Your task to perform on an android device: add a contact Image 0: 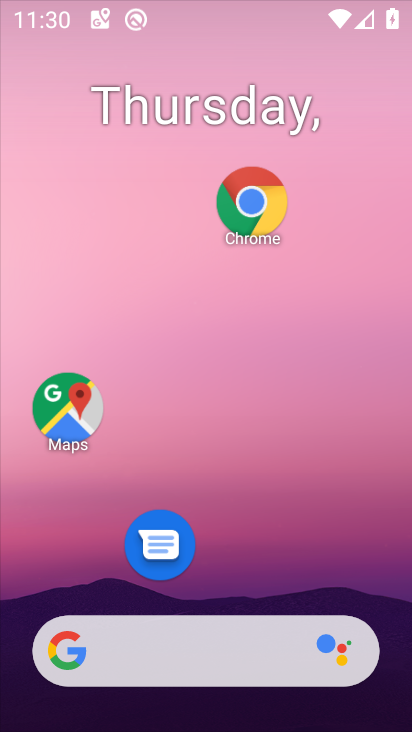
Step 0: drag from (217, 595) to (281, 153)
Your task to perform on an android device: add a contact Image 1: 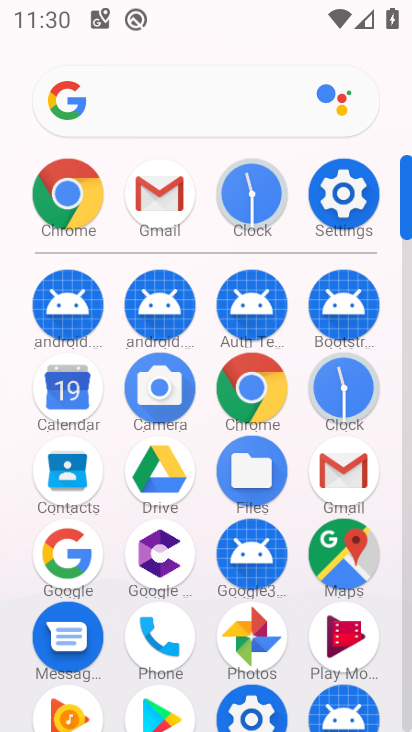
Step 1: click (64, 496)
Your task to perform on an android device: add a contact Image 2: 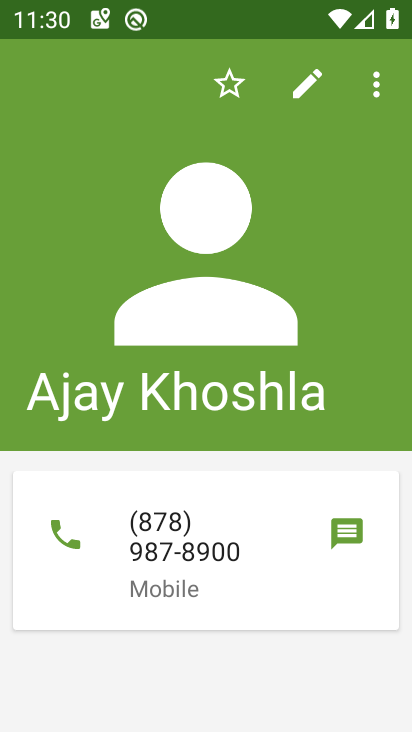
Step 2: press back button
Your task to perform on an android device: add a contact Image 3: 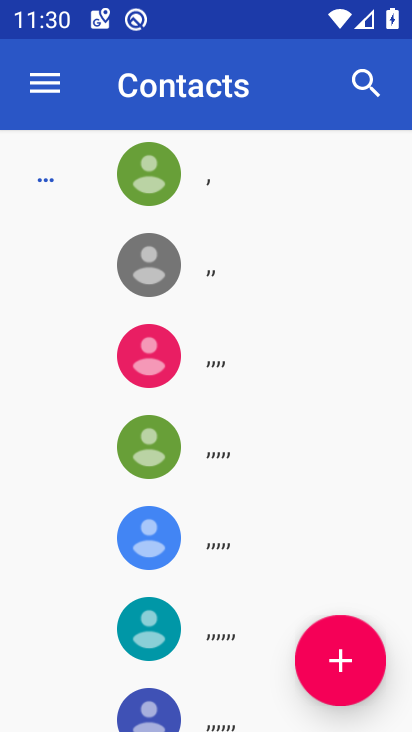
Step 3: click (350, 667)
Your task to perform on an android device: add a contact Image 4: 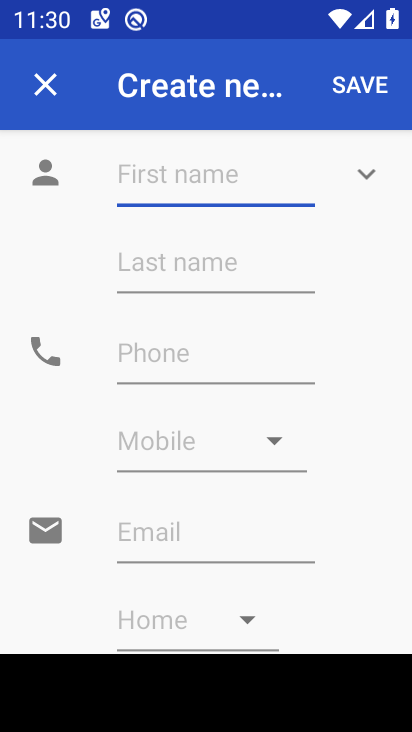
Step 4: click (188, 182)
Your task to perform on an android device: add a contact Image 5: 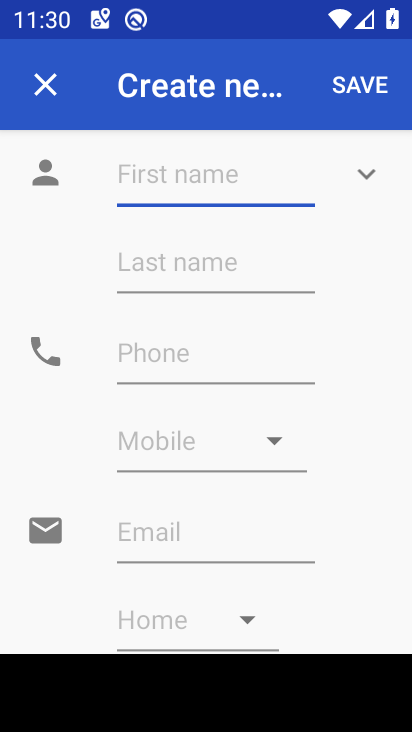
Step 5: type "ankur"
Your task to perform on an android device: add a contact Image 6: 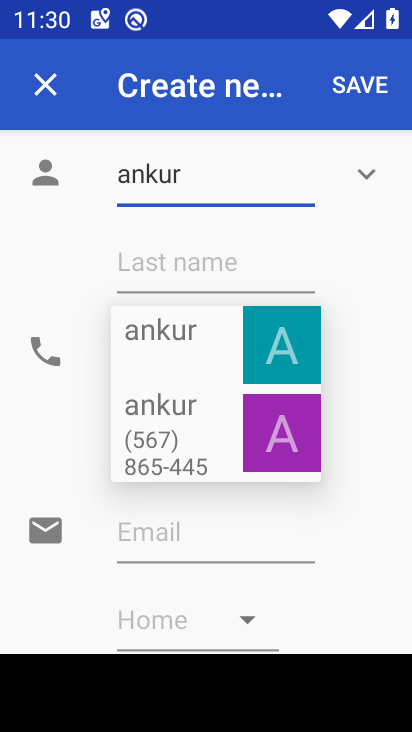
Step 6: click (269, 266)
Your task to perform on an android device: add a contact Image 7: 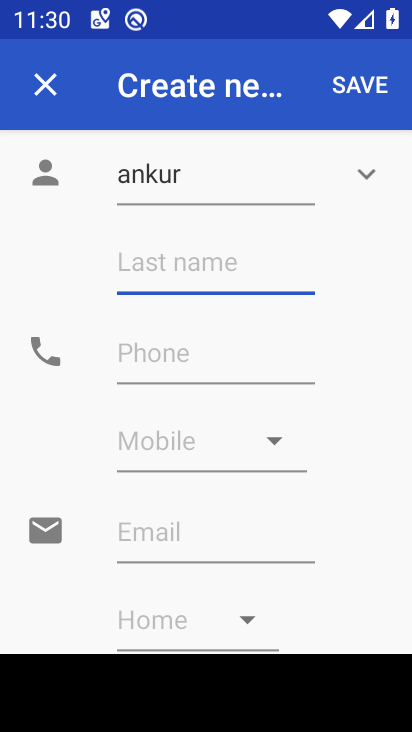
Step 7: type "bhatt"
Your task to perform on an android device: add a contact Image 8: 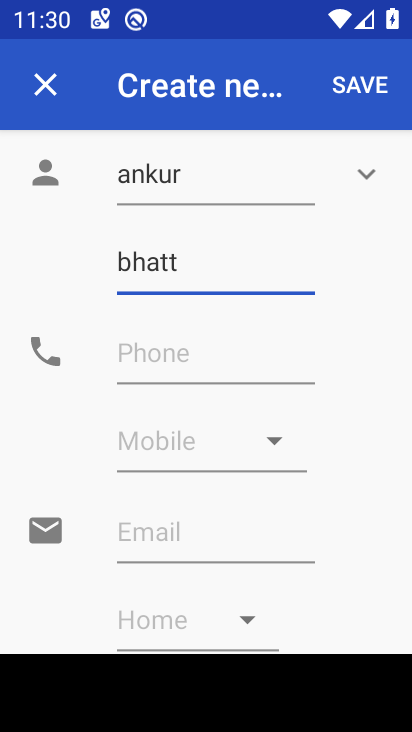
Step 8: click (215, 365)
Your task to perform on an android device: add a contact Image 9: 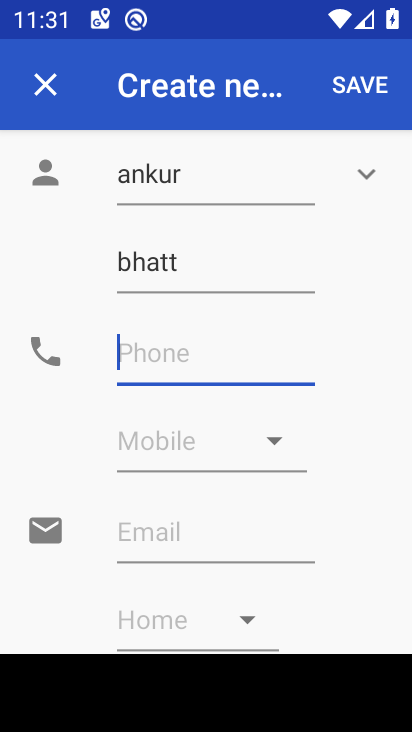
Step 9: click (228, 352)
Your task to perform on an android device: add a contact Image 10: 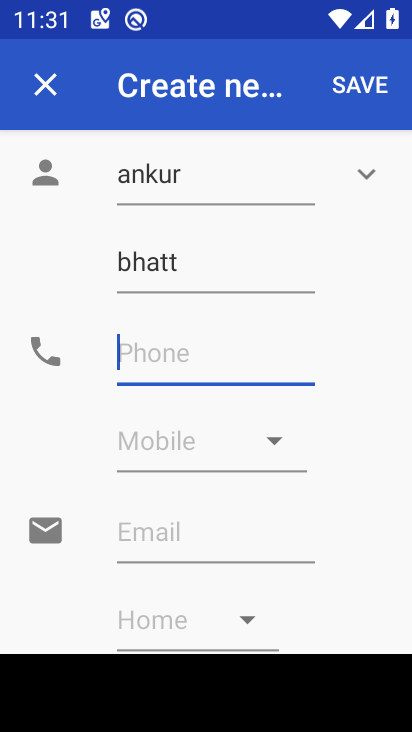
Step 10: type "8989000098"
Your task to perform on an android device: add a contact Image 11: 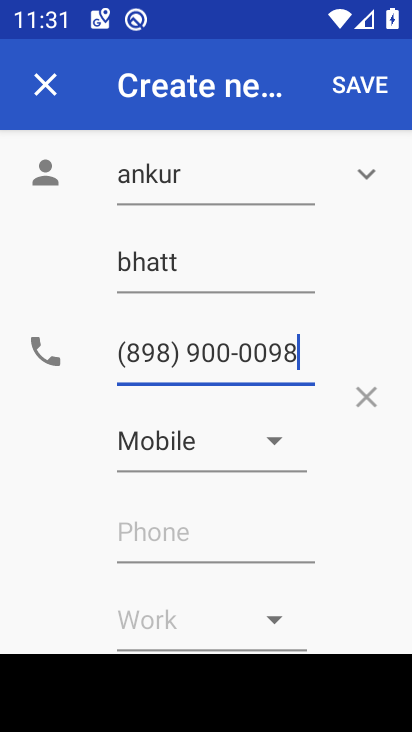
Step 11: click (347, 87)
Your task to perform on an android device: add a contact Image 12: 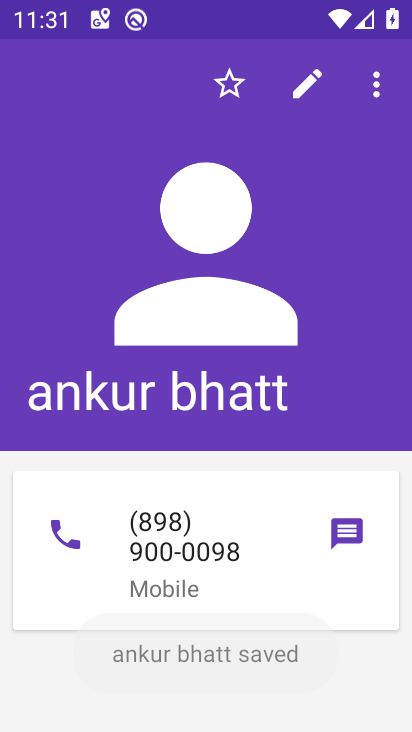
Step 12: task complete